Your task to perform on an android device: What's the weather going to be this weekend? Image 0: 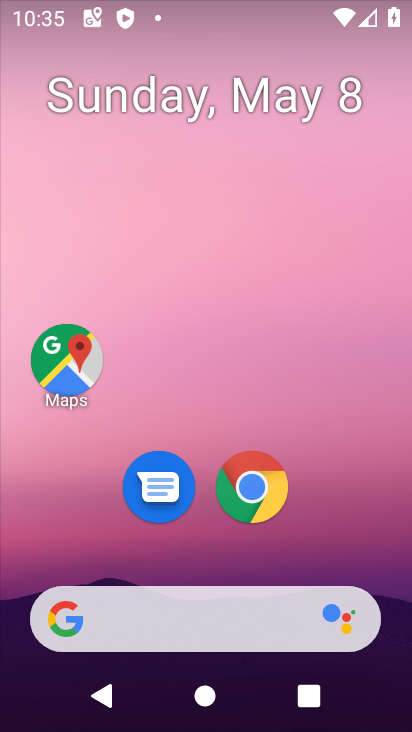
Step 0: click (152, 626)
Your task to perform on an android device: What's the weather going to be this weekend? Image 1: 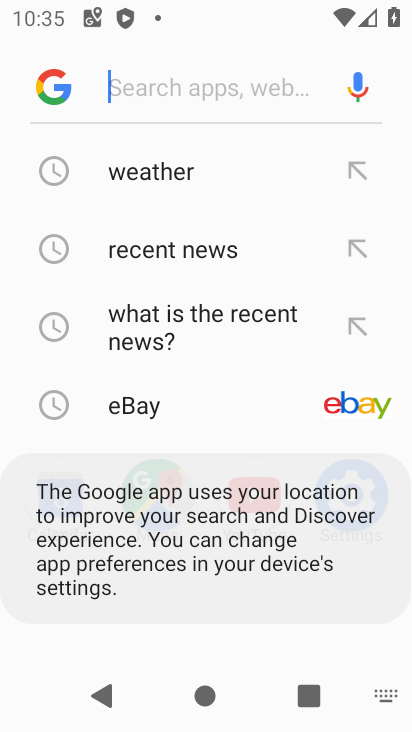
Step 1: click (128, 173)
Your task to perform on an android device: What's the weather going to be this weekend? Image 2: 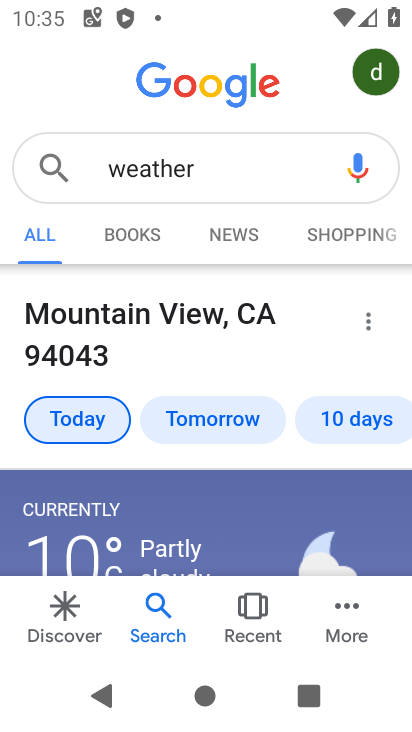
Step 2: click (343, 408)
Your task to perform on an android device: What's the weather going to be this weekend? Image 3: 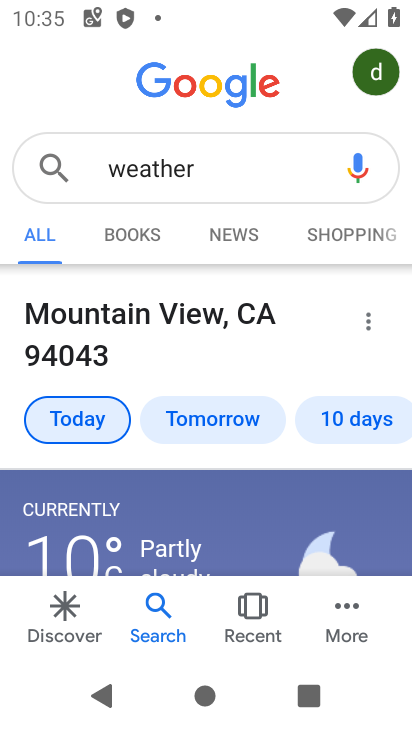
Step 3: click (340, 416)
Your task to perform on an android device: What's the weather going to be this weekend? Image 4: 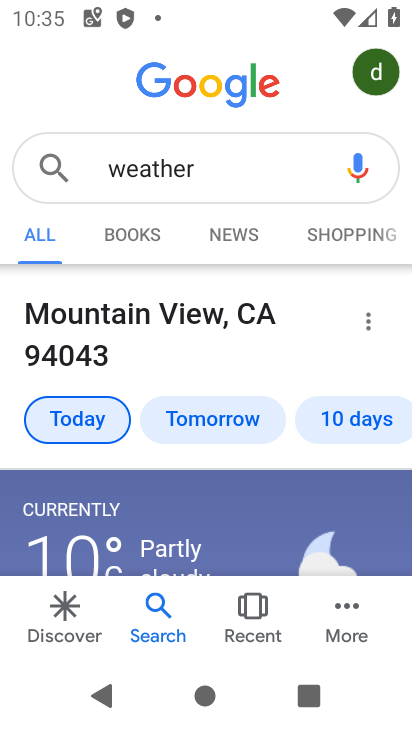
Step 4: task complete